Your task to perform on an android device: open app "Life360: Find Family & Friends" (install if not already installed) and go to login screen Image 0: 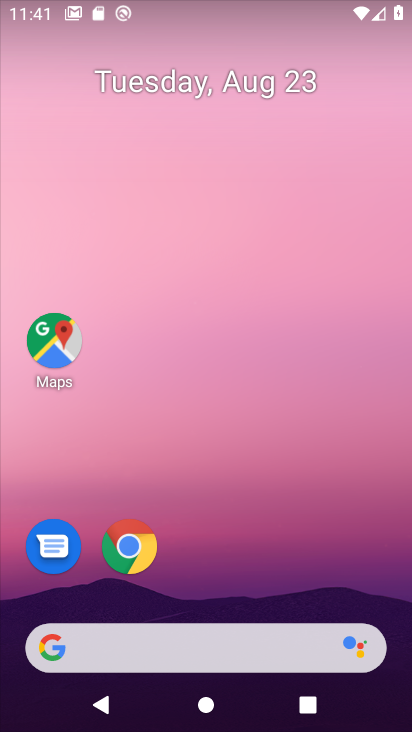
Step 0: drag from (220, 588) to (230, 240)
Your task to perform on an android device: open app "Life360: Find Family & Friends" (install if not already installed) and go to login screen Image 1: 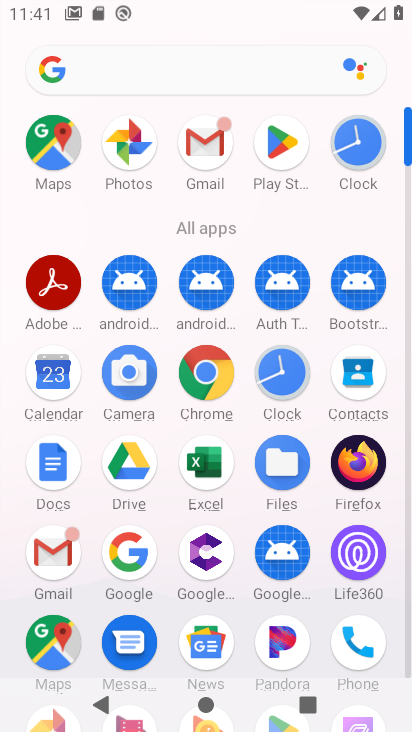
Step 1: click (266, 148)
Your task to perform on an android device: open app "Life360: Find Family & Friends" (install if not already installed) and go to login screen Image 2: 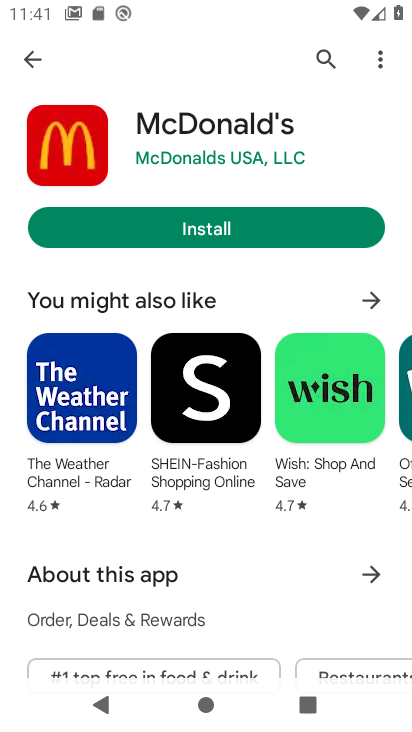
Step 2: click (36, 57)
Your task to perform on an android device: open app "Life360: Find Family & Friends" (install if not already installed) and go to login screen Image 3: 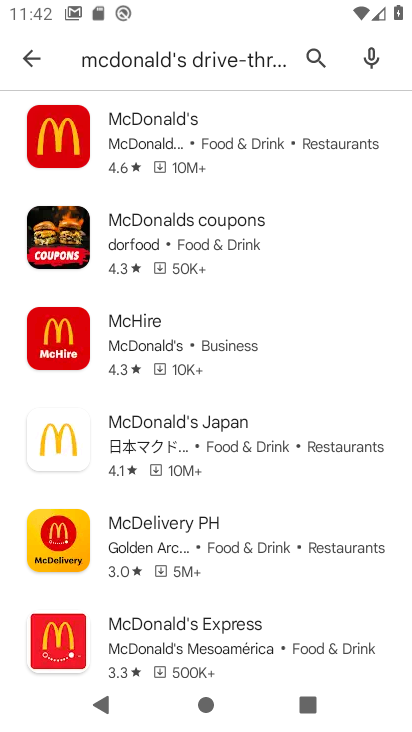
Step 3: click (33, 60)
Your task to perform on an android device: open app "Life360: Find Family & Friends" (install if not already installed) and go to login screen Image 4: 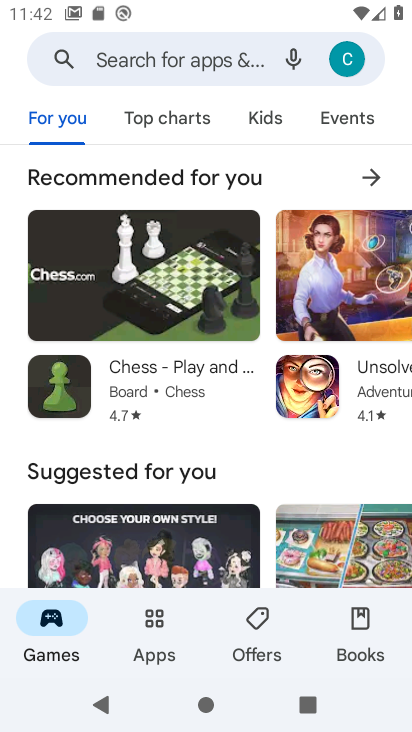
Step 4: click (154, 59)
Your task to perform on an android device: open app "Life360: Find Family & Friends" (install if not already installed) and go to login screen Image 5: 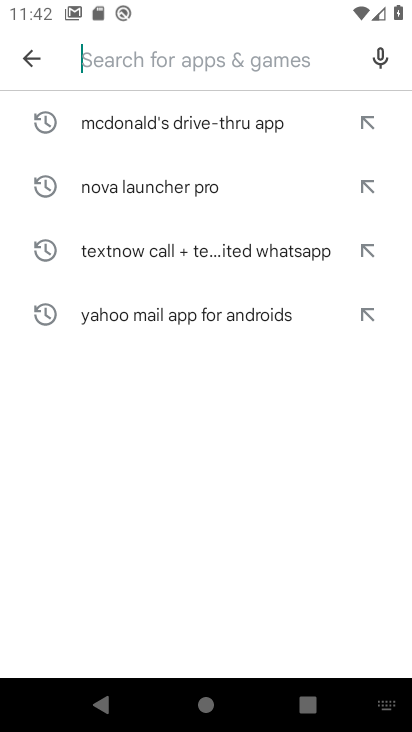
Step 5: type "Life360: Find Family & Friends "
Your task to perform on an android device: open app "Life360: Find Family & Friends" (install if not already installed) and go to login screen Image 6: 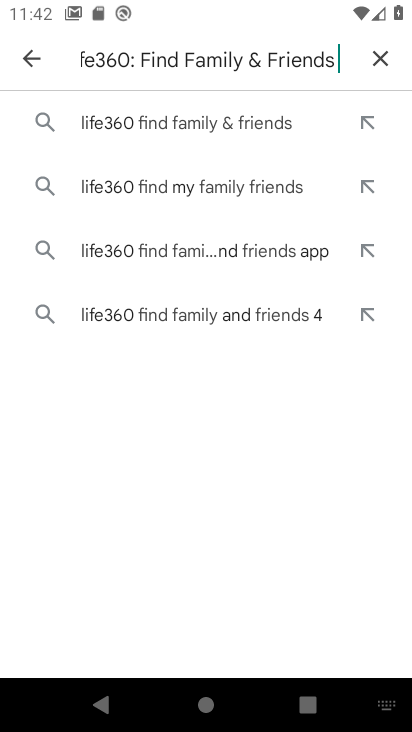
Step 6: click (152, 131)
Your task to perform on an android device: open app "Life360: Find Family & Friends" (install if not already installed) and go to login screen Image 7: 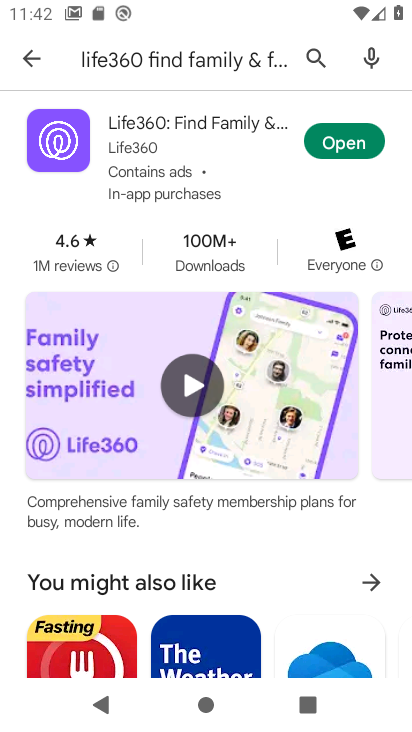
Step 7: click (354, 136)
Your task to perform on an android device: open app "Life360: Find Family & Friends" (install if not already installed) and go to login screen Image 8: 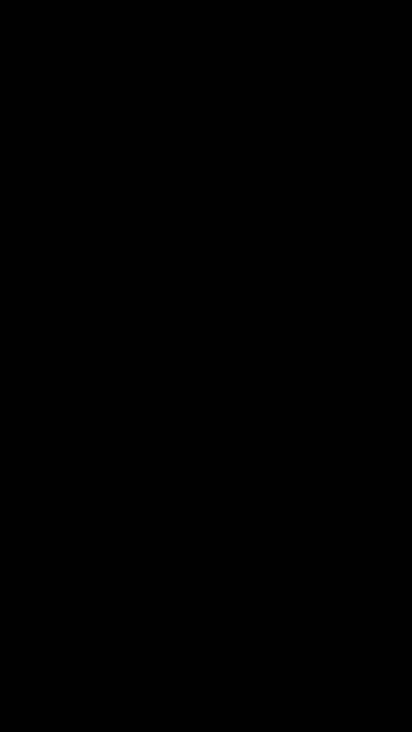
Step 8: task complete